Your task to perform on an android device: Open Android settings Image 0: 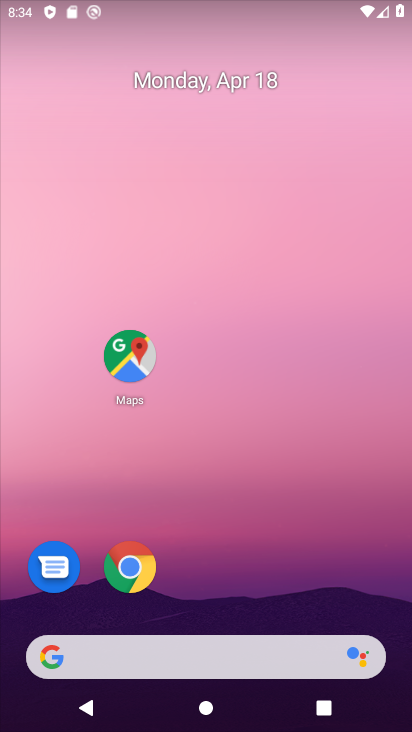
Step 0: drag from (289, 680) to (305, 217)
Your task to perform on an android device: Open Android settings Image 1: 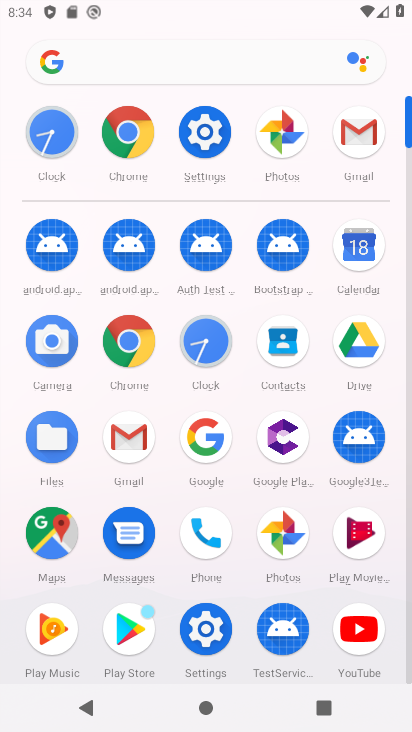
Step 1: click (205, 139)
Your task to perform on an android device: Open Android settings Image 2: 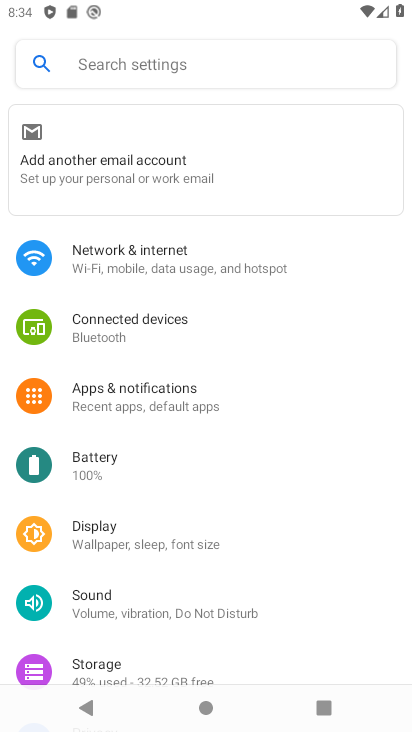
Step 2: click (126, 62)
Your task to perform on an android device: Open Android settings Image 3: 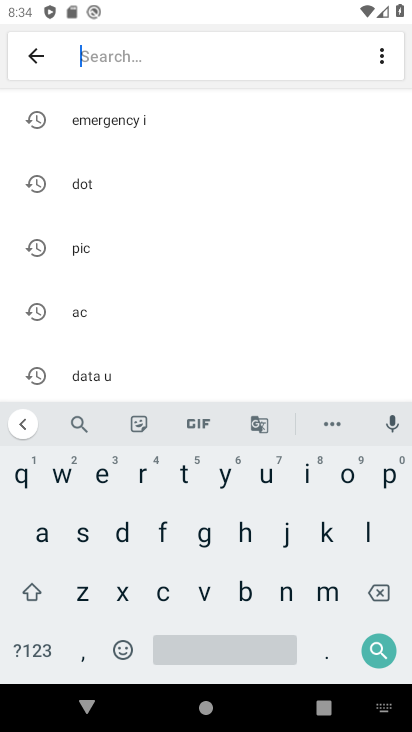
Step 3: click (34, 544)
Your task to perform on an android device: Open Android settings Image 4: 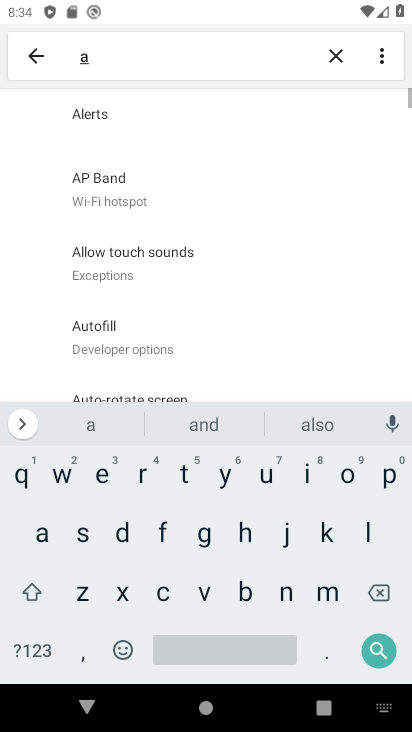
Step 4: click (287, 586)
Your task to perform on an android device: Open Android settings Image 5: 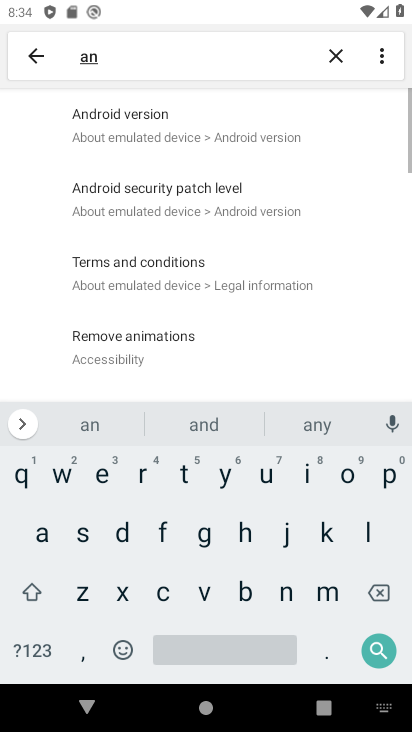
Step 5: click (127, 525)
Your task to perform on an android device: Open Android settings Image 6: 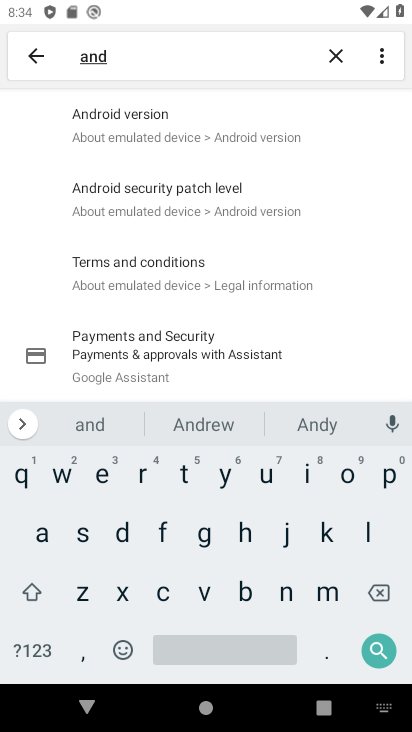
Step 6: click (169, 134)
Your task to perform on an android device: Open Android settings Image 7: 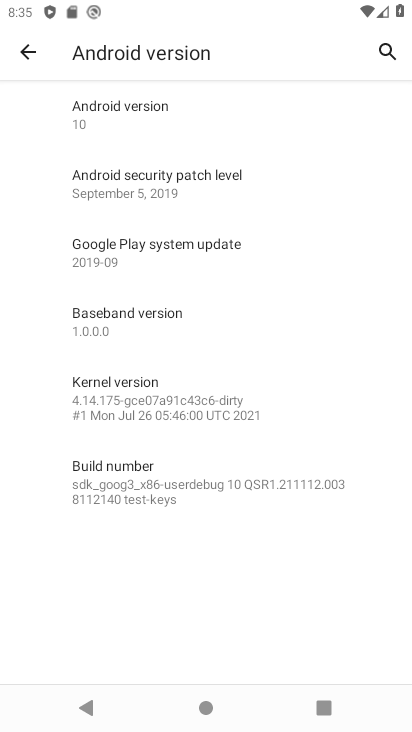
Step 7: click (154, 123)
Your task to perform on an android device: Open Android settings Image 8: 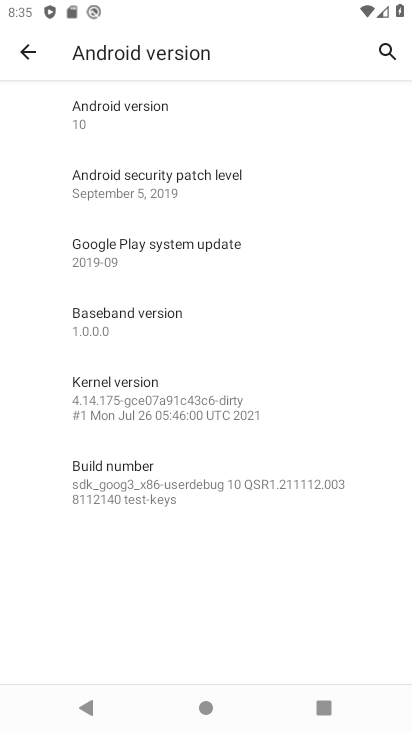
Step 8: click (149, 194)
Your task to perform on an android device: Open Android settings Image 9: 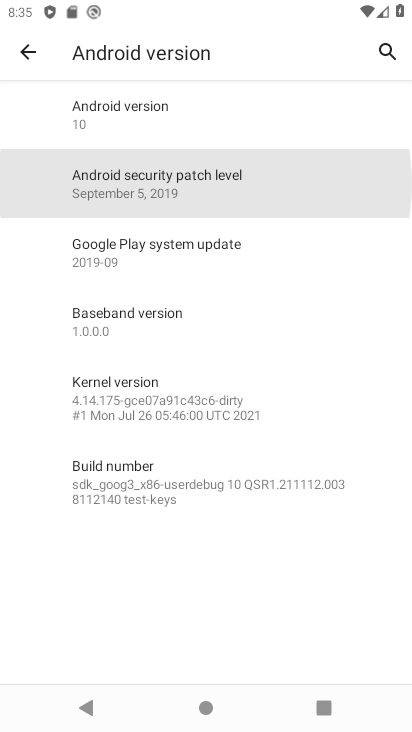
Step 9: task complete